Your task to perform on an android device: Search for Italian restaurants on Maps Image 0: 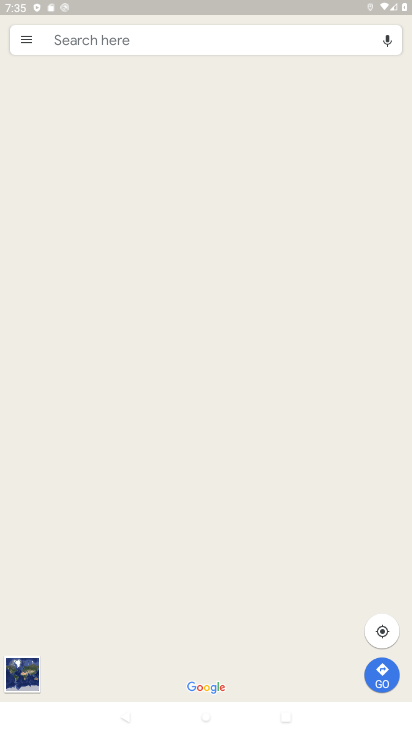
Step 0: press home button
Your task to perform on an android device: Search for Italian restaurants on Maps Image 1: 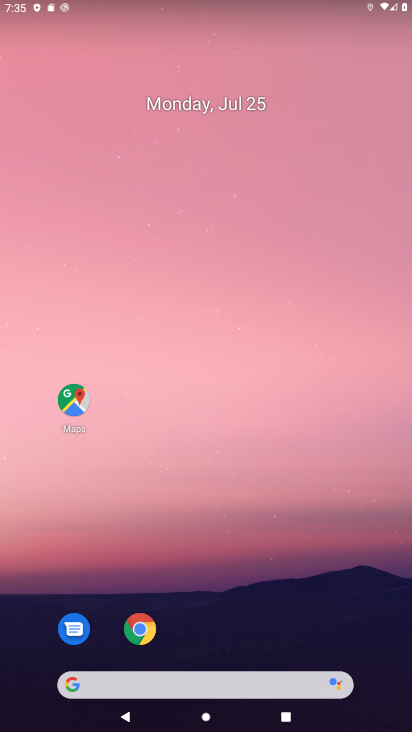
Step 1: click (66, 400)
Your task to perform on an android device: Search for Italian restaurants on Maps Image 2: 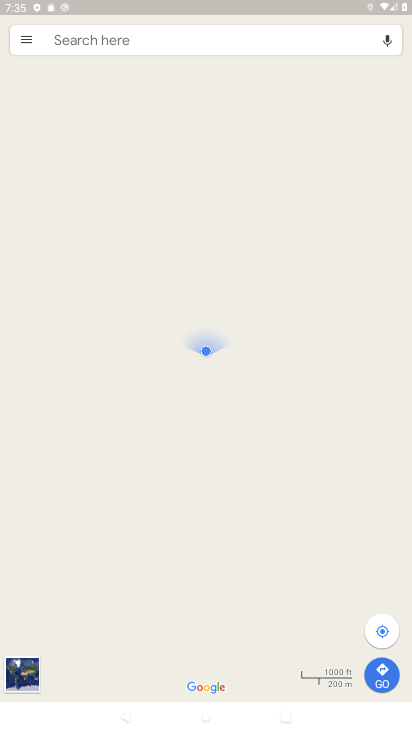
Step 2: click (162, 36)
Your task to perform on an android device: Search for Italian restaurants on Maps Image 3: 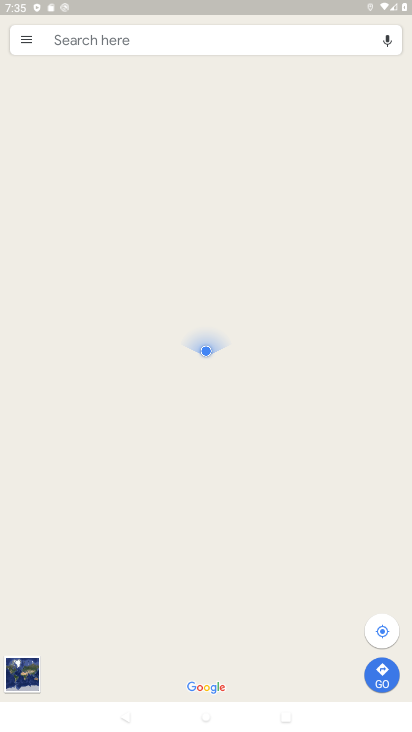
Step 3: click (163, 38)
Your task to perform on an android device: Search for Italian restaurants on Maps Image 4: 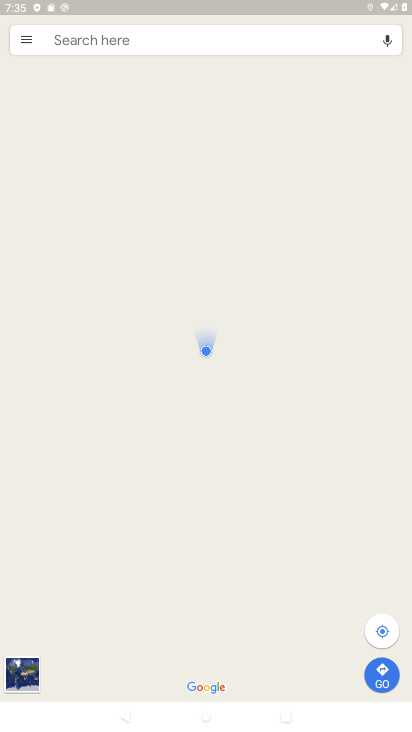
Step 4: click (86, 43)
Your task to perform on an android device: Search for Italian restaurants on Maps Image 5: 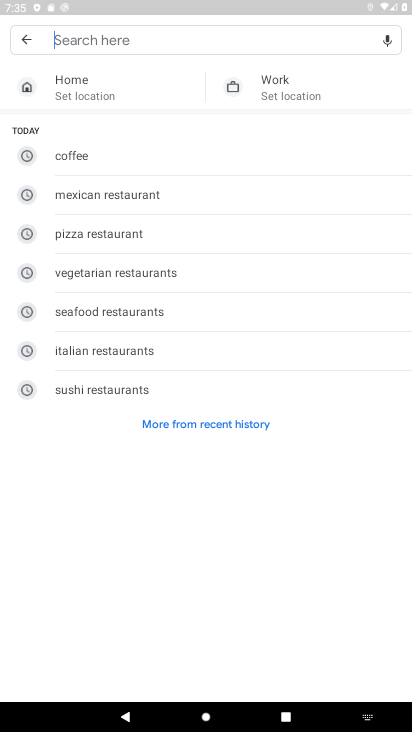
Step 5: type "italian restaurants"
Your task to perform on an android device: Search for Italian restaurants on Maps Image 6: 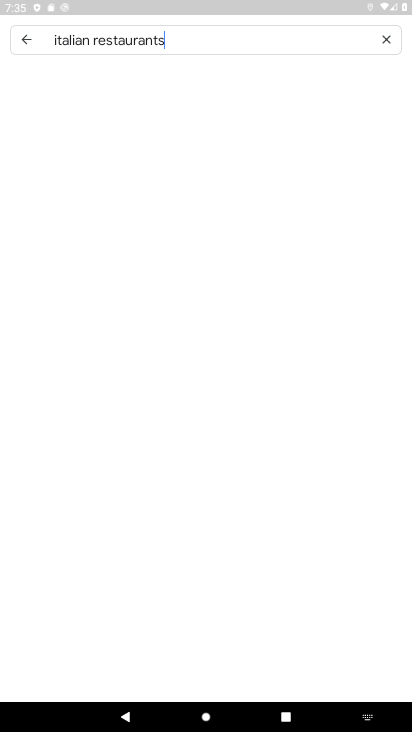
Step 6: type ""
Your task to perform on an android device: Search for Italian restaurants on Maps Image 7: 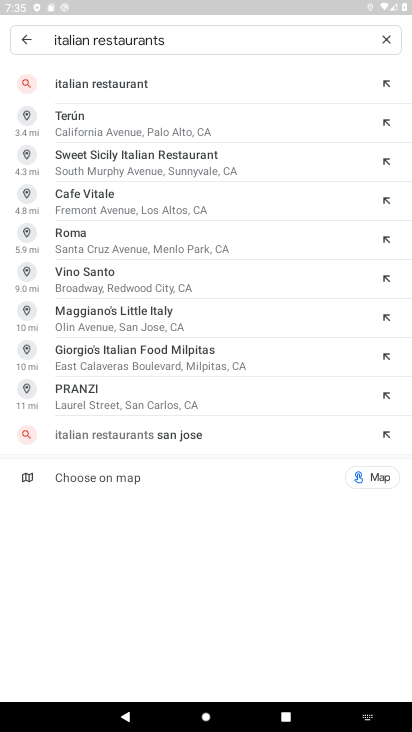
Step 7: click (194, 84)
Your task to perform on an android device: Search for Italian restaurants on Maps Image 8: 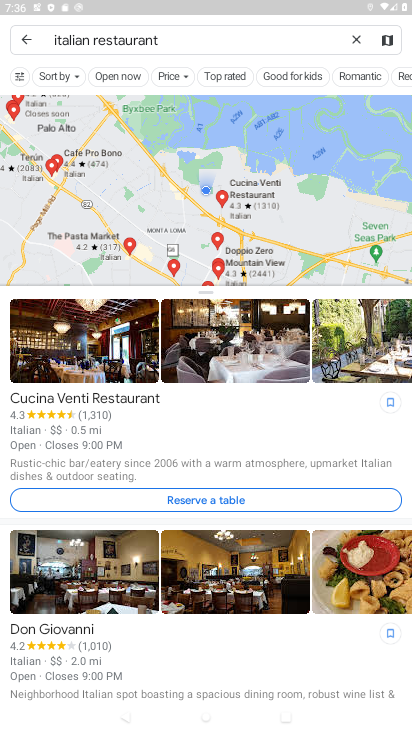
Step 8: task complete